Your task to perform on an android device: Go to location settings Image 0: 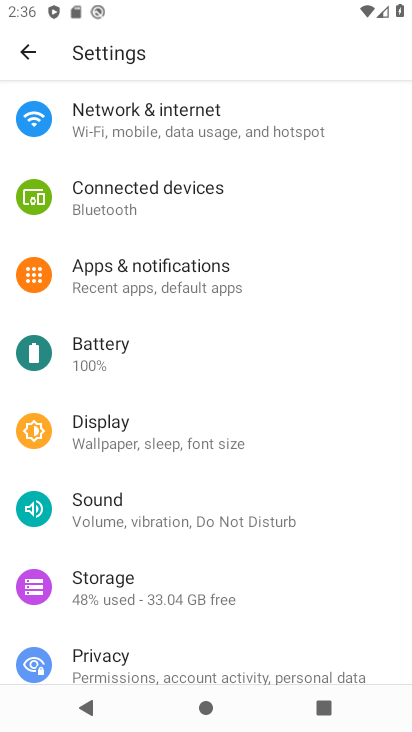
Step 0: press back button
Your task to perform on an android device: Go to location settings Image 1: 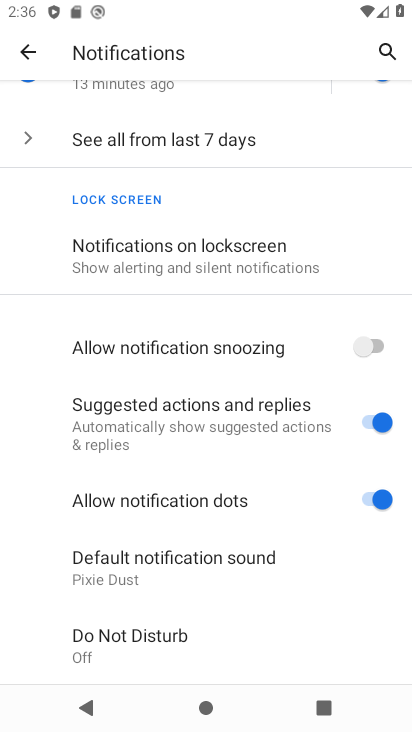
Step 1: press home button
Your task to perform on an android device: Go to location settings Image 2: 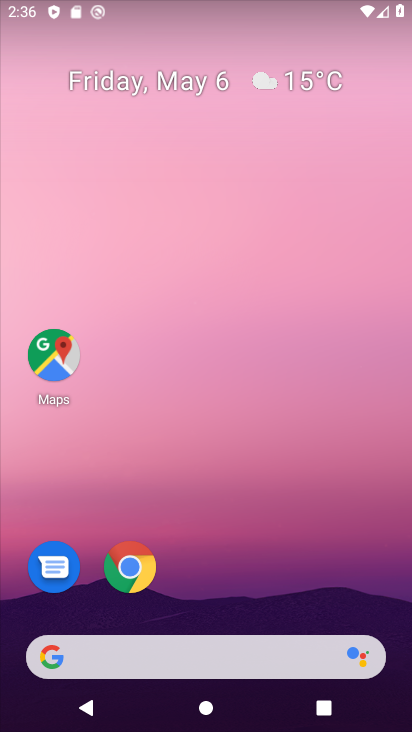
Step 2: drag from (218, 630) to (337, 59)
Your task to perform on an android device: Go to location settings Image 3: 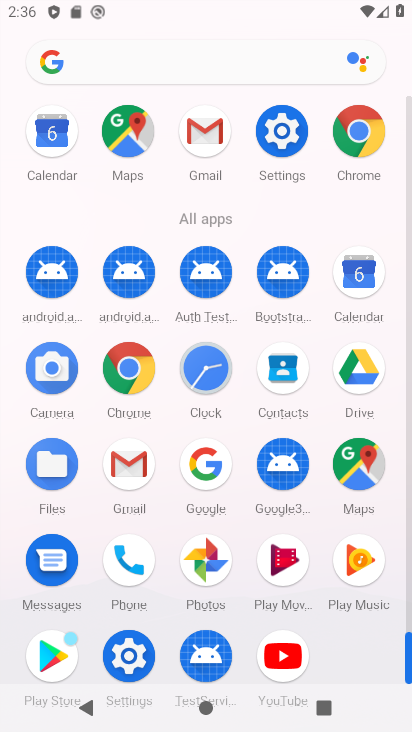
Step 3: click (125, 664)
Your task to perform on an android device: Go to location settings Image 4: 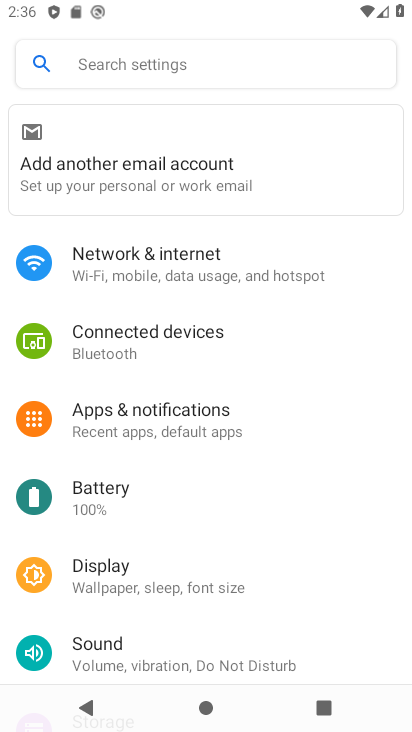
Step 4: drag from (208, 676) to (278, 287)
Your task to perform on an android device: Go to location settings Image 5: 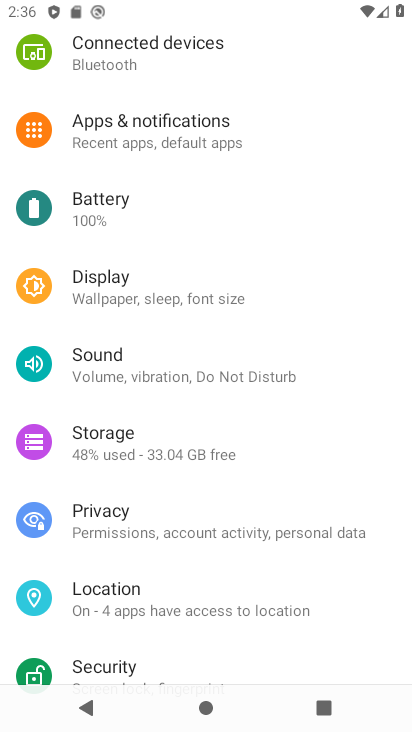
Step 5: click (126, 604)
Your task to perform on an android device: Go to location settings Image 6: 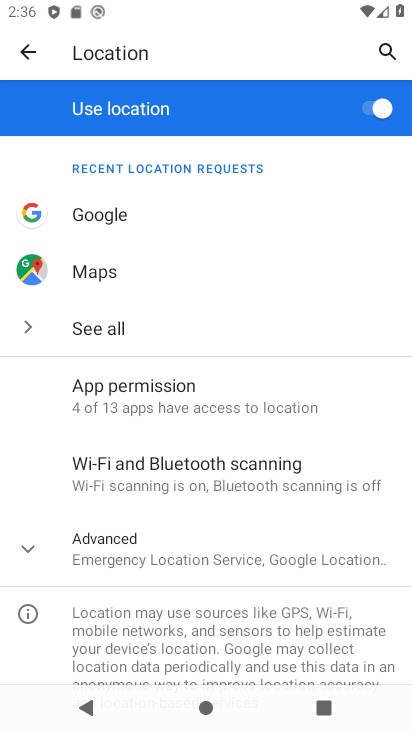
Step 6: task complete